Your task to perform on an android device: Go to calendar. Show me events next week Image 0: 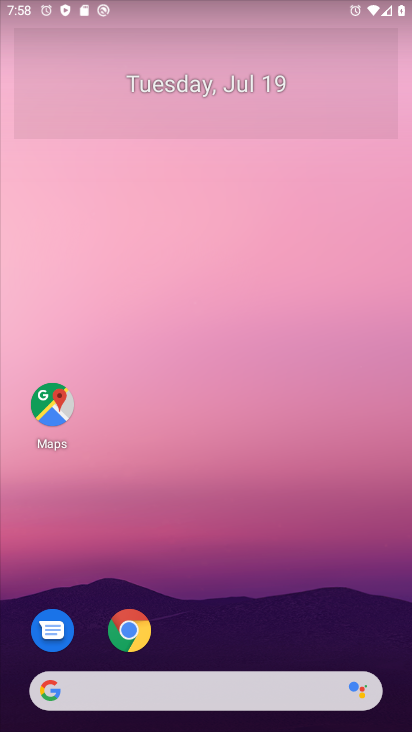
Step 0: drag from (228, 573) to (203, 351)
Your task to perform on an android device: Go to calendar. Show me events next week Image 1: 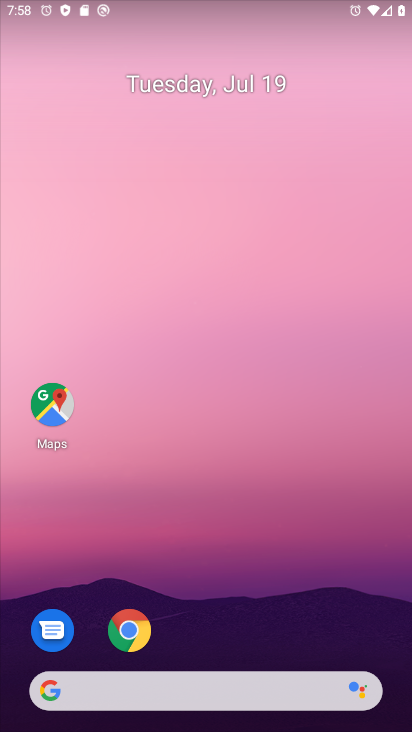
Step 1: drag from (331, 511) to (280, 301)
Your task to perform on an android device: Go to calendar. Show me events next week Image 2: 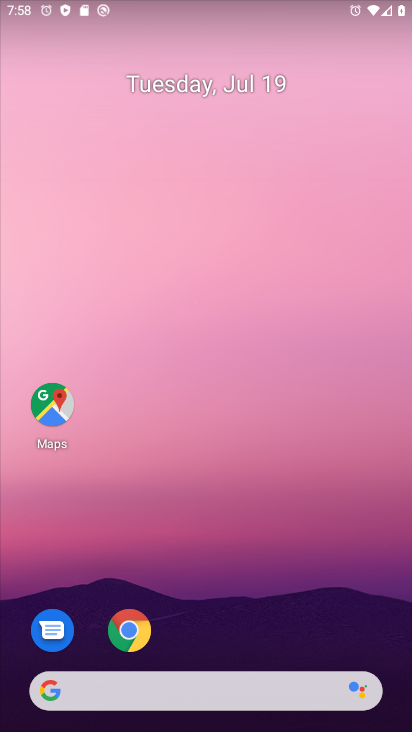
Step 2: drag from (265, 558) to (267, 236)
Your task to perform on an android device: Go to calendar. Show me events next week Image 3: 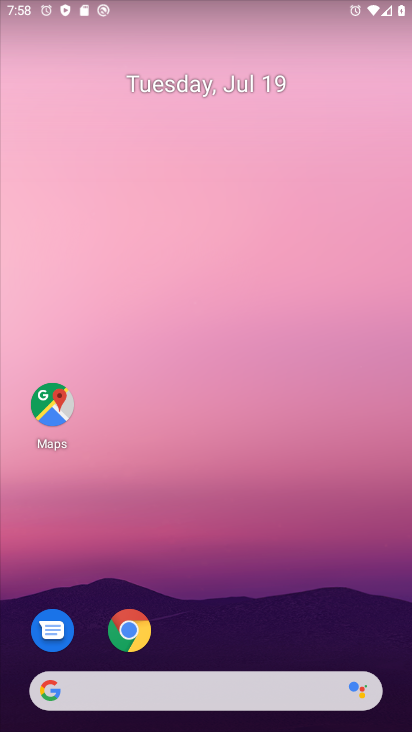
Step 3: drag from (293, 606) to (275, 158)
Your task to perform on an android device: Go to calendar. Show me events next week Image 4: 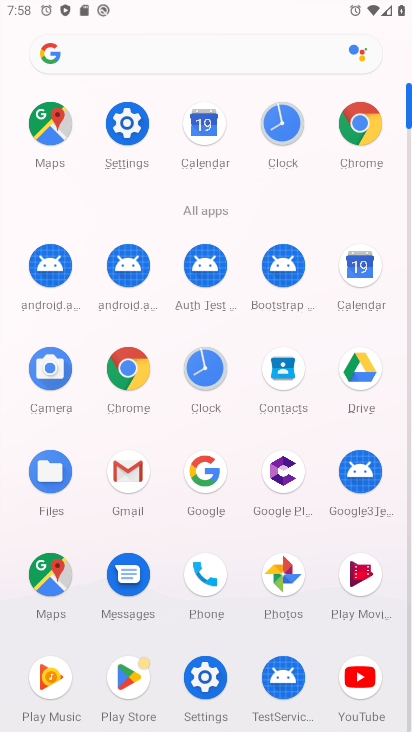
Step 4: click (360, 271)
Your task to perform on an android device: Go to calendar. Show me events next week Image 5: 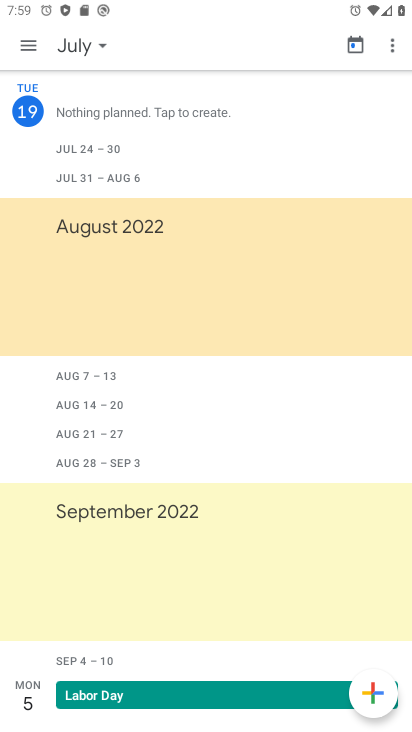
Step 5: task complete